Your task to perform on an android device: turn off airplane mode Image 0: 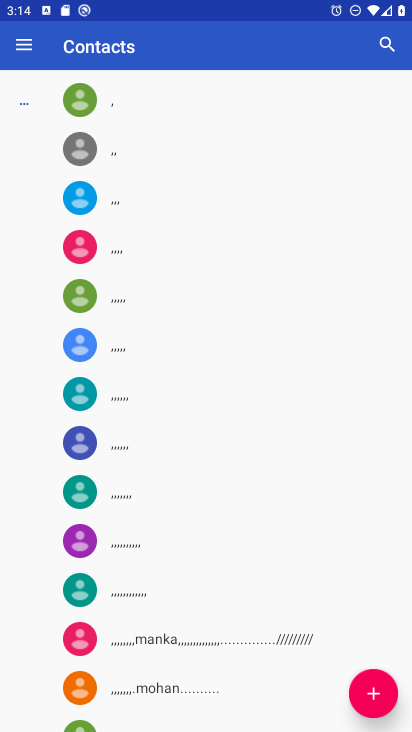
Step 0: press home button
Your task to perform on an android device: turn off airplane mode Image 1: 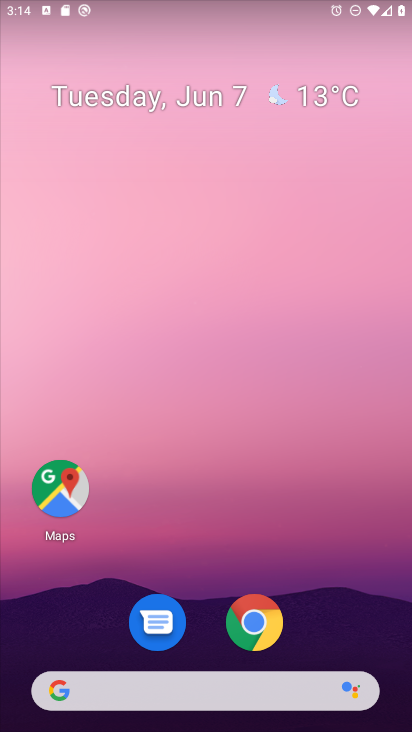
Step 1: drag from (346, 595) to (250, 46)
Your task to perform on an android device: turn off airplane mode Image 2: 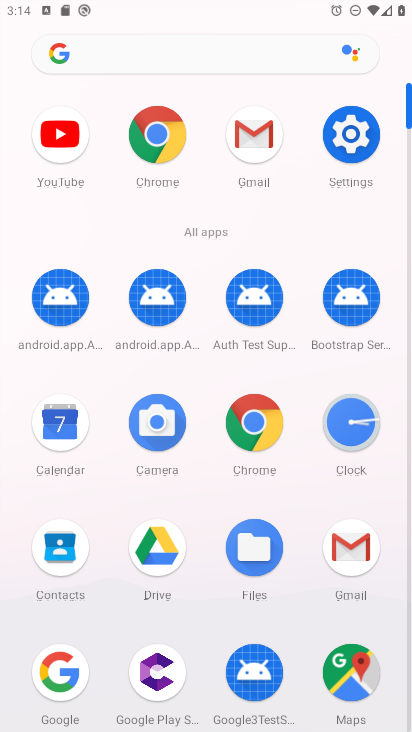
Step 2: click (340, 148)
Your task to perform on an android device: turn off airplane mode Image 3: 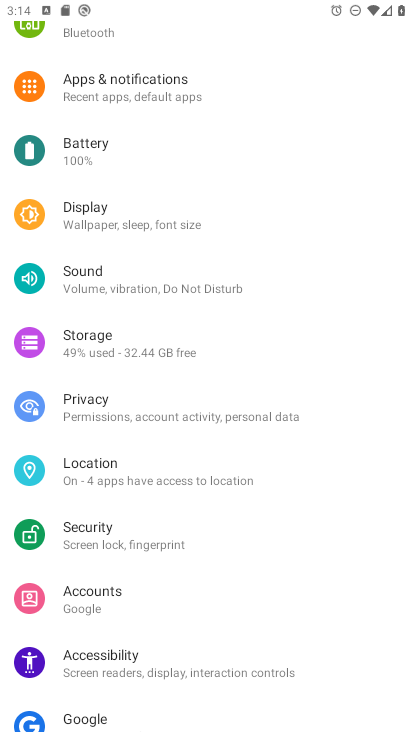
Step 3: drag from (271, 97) to (252, 490)
Your task to perform on an android device: turn off airplane mode Image 4: 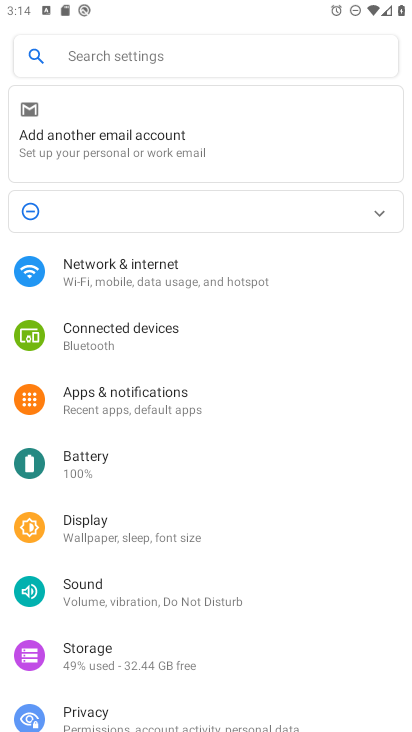
Step 4: click (196, 276)
Your task to perform on an android device: turn off airplane mode Image 5: 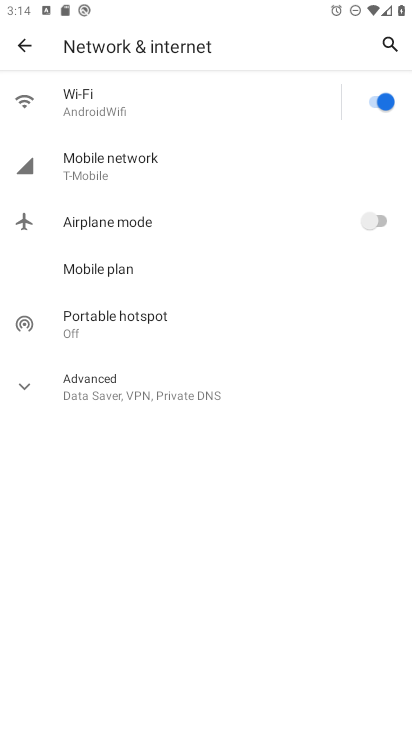
Step 5: task complete